Your task to perform on an android device: toggle notifications settings in the gmail app Image 0: 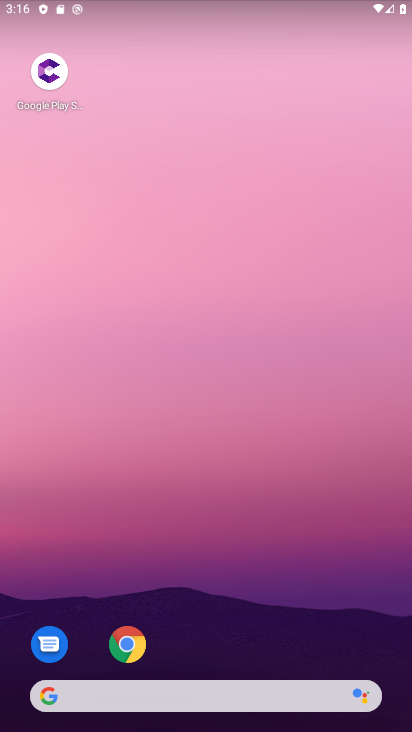
Step 0: click (330, 310)
Your task to perform on an android device: toggle notifications settings in the gmail app Image 1: 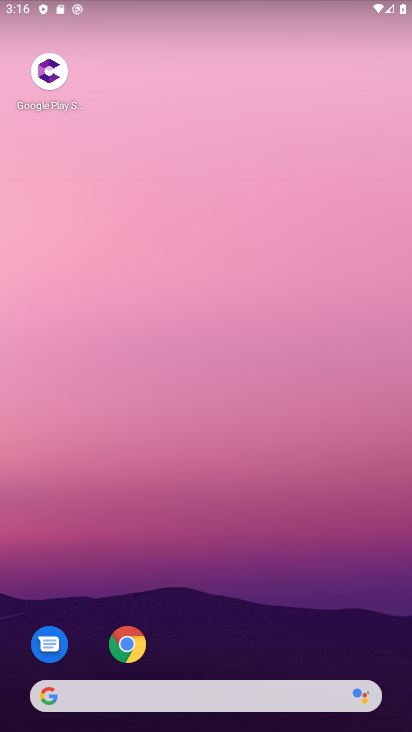
Step 1: drag from (306, 368) to (269, 220)
Your task to perform on an android device: toggle notifications settings in the gmail app Image 2: 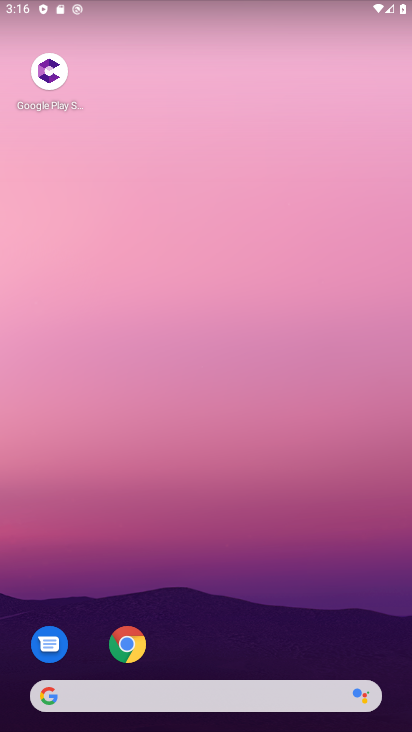
Step 2: drag from (319, 261) to (312, 141)
Your task to perform on an android device: toggle notifications settings in the gmail app Image 3: 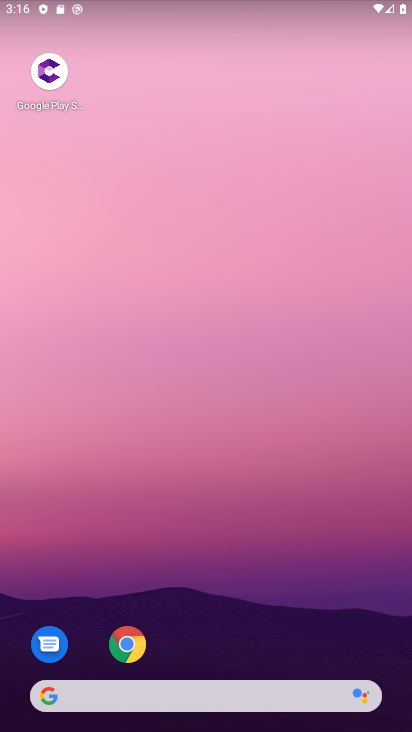
Step 3: drag from (373, 621) to (314, 147)
Your task to perform on an android device: toggle notifications settings in the gmail app Image 4: 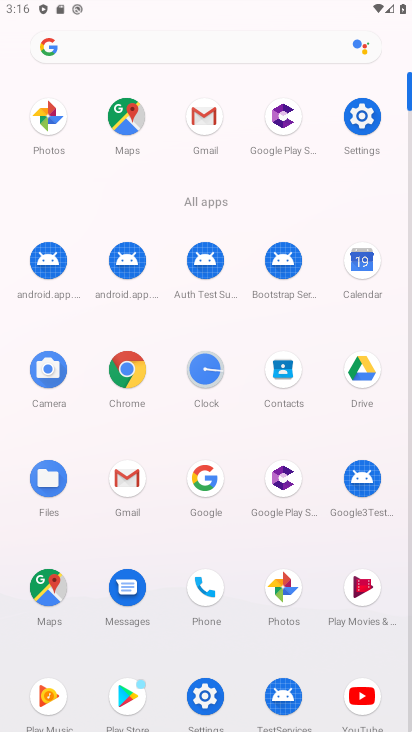
Step 4: click (209, 123)
Your task to perform on an android device: toggle notifications settings in the gmail app Image 5: 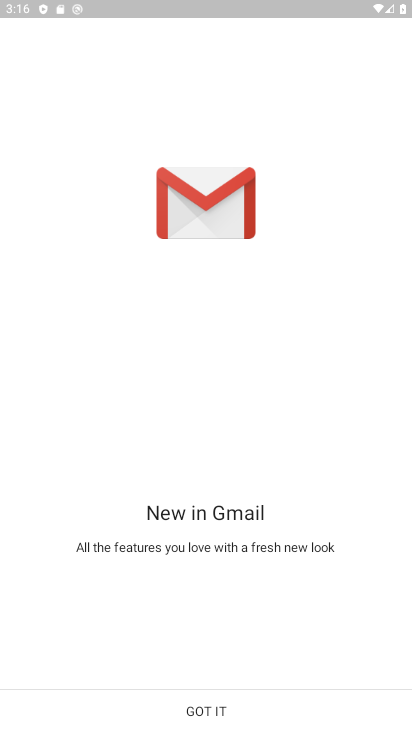
Step 5: click (207, 521)
Your task to perform on an android device: toggle notifications settings in the gmail app Image 6: 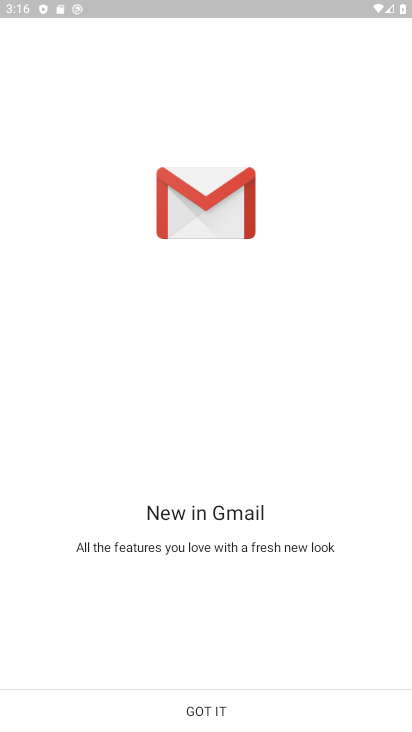
Step 6: click (193, 710)
Your task to perform on an android device: toggle notifications settings in the gmail app Image 7: 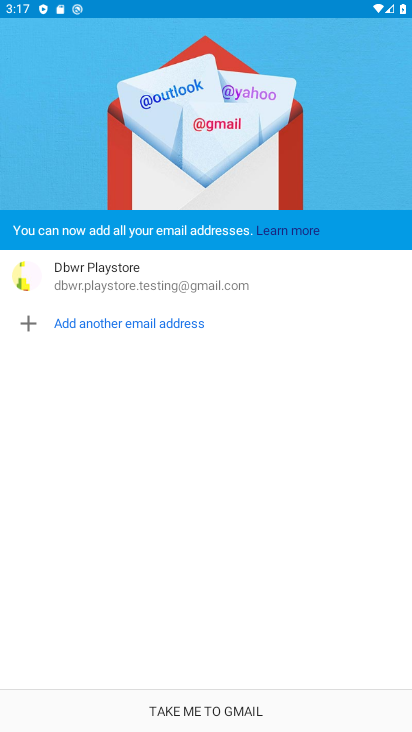
Step 7: click (199, 708)
Your task to perform on an android device: toggle notifications settings in the gmail app Image 8: 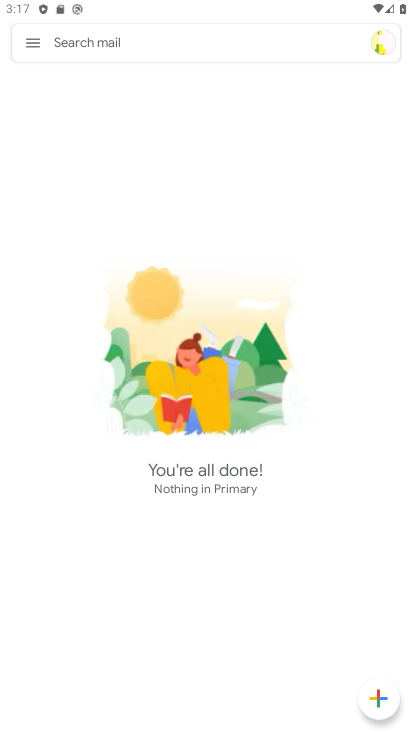
Step 8: click (25, 42)
Your task to perform on an android device: toggle notifications settings in the gmail app Image 9: 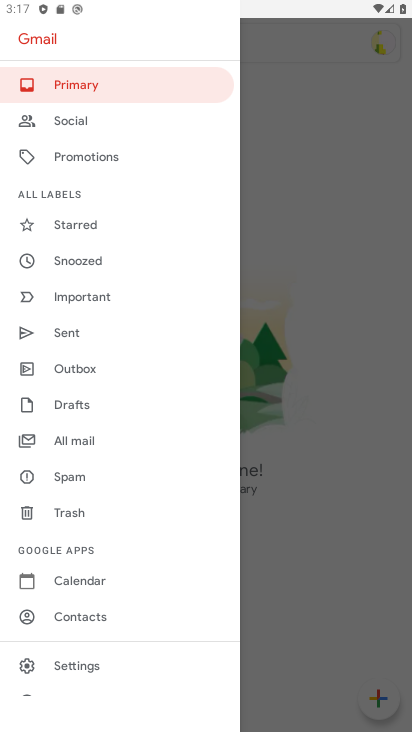
Step 9: click (67, 667)
Your task to perform on an android device: toggle notifications settings in the gmail app Image 10: 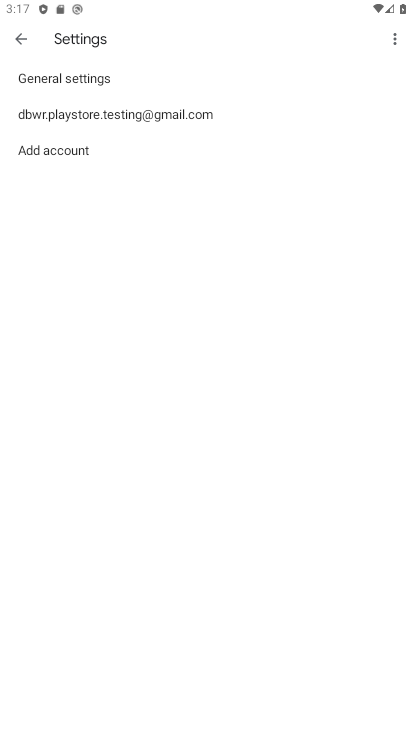
Step 10: click (73, 73)
Your task to perform on an android device: toggle notifications settings in the gmail app Image 11: 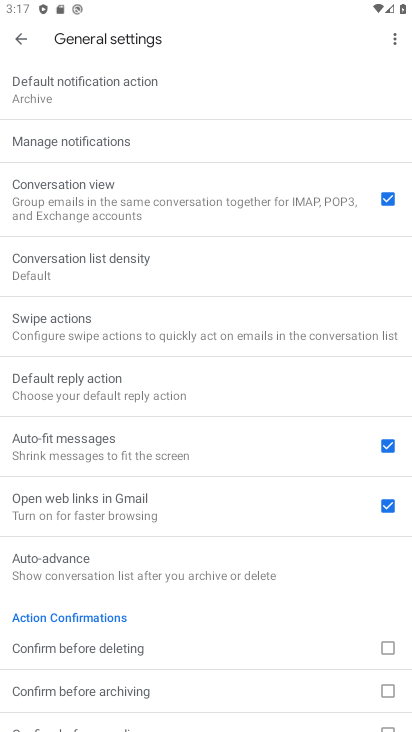
Step 11: click (63, 140)
Your task to perform on an android device: toggle notifications settings in the gmail app Image 12: 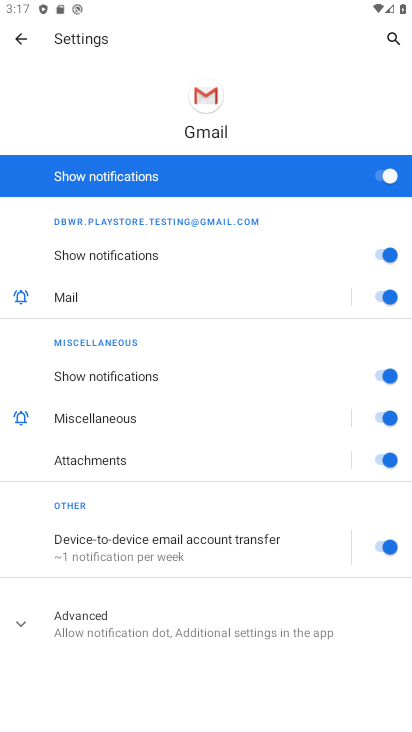
Step 12: click (379, 167)
Your task to perform on an android device: toggle notifications settings in the gmail app Image 13: 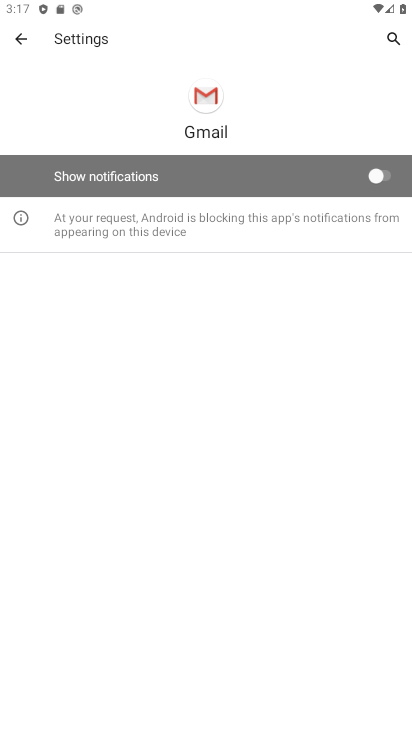
Step 13: task complete